Your task to perform on an android device: uninstall "ZOOM Cloud Meetings" Image 0: 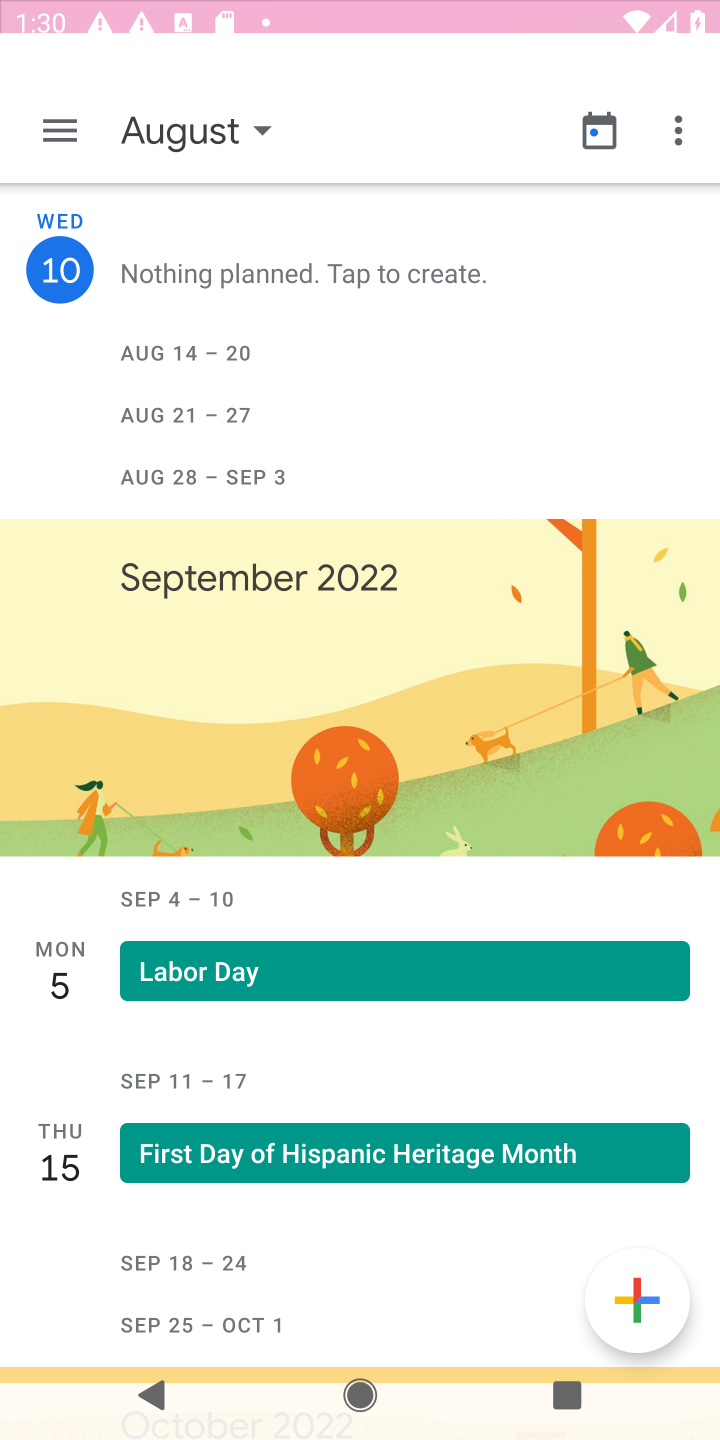
Step 0: press home button
Your task to perform on an android device: uninstall "ZOOM Cloud Meetings" Image 1: 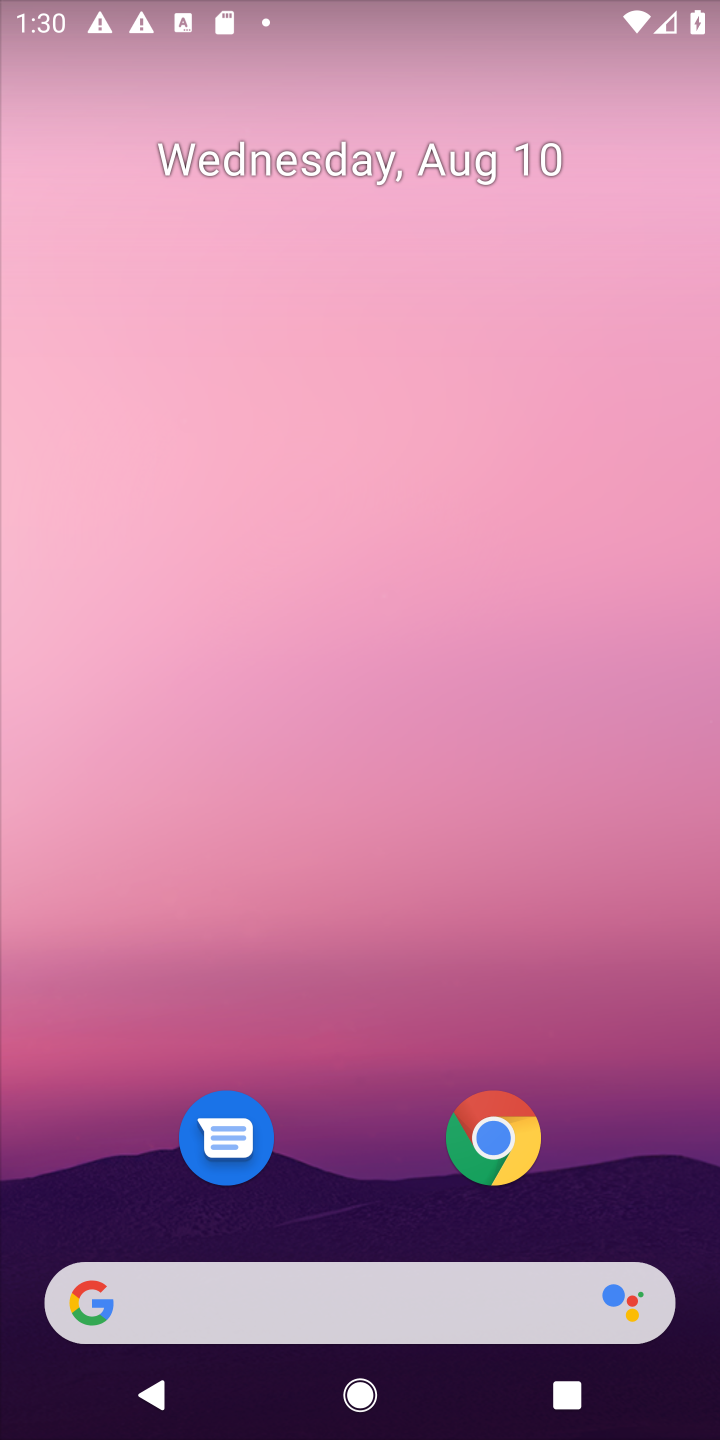
Step 1: drag from (609, 953) to (653, 103)
Your task to perform on an android device: uninstall "ZOOM Cloud Meetings" Image 2: 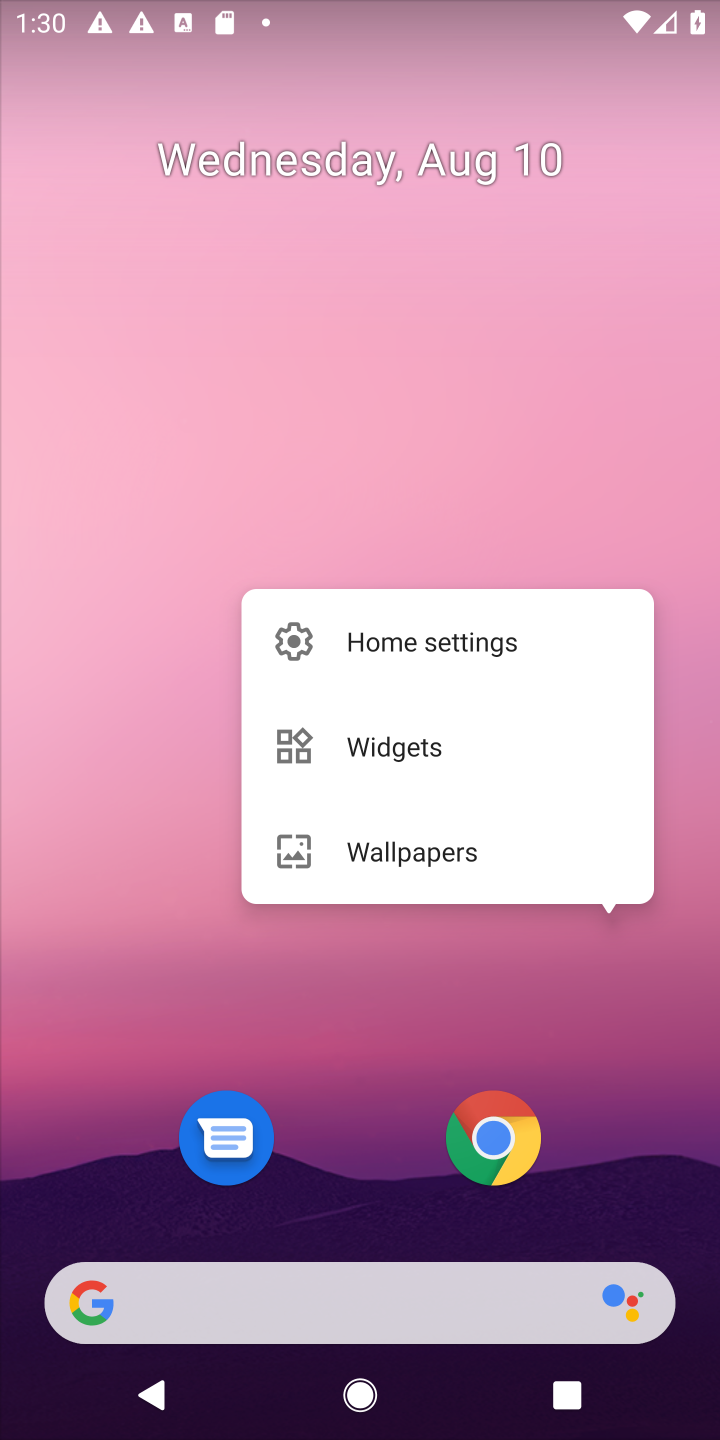
Step 2: click (623, 1052)
Your task to perform on an android device: uninstall "ZOOM Cloud Meetings" Image 3: 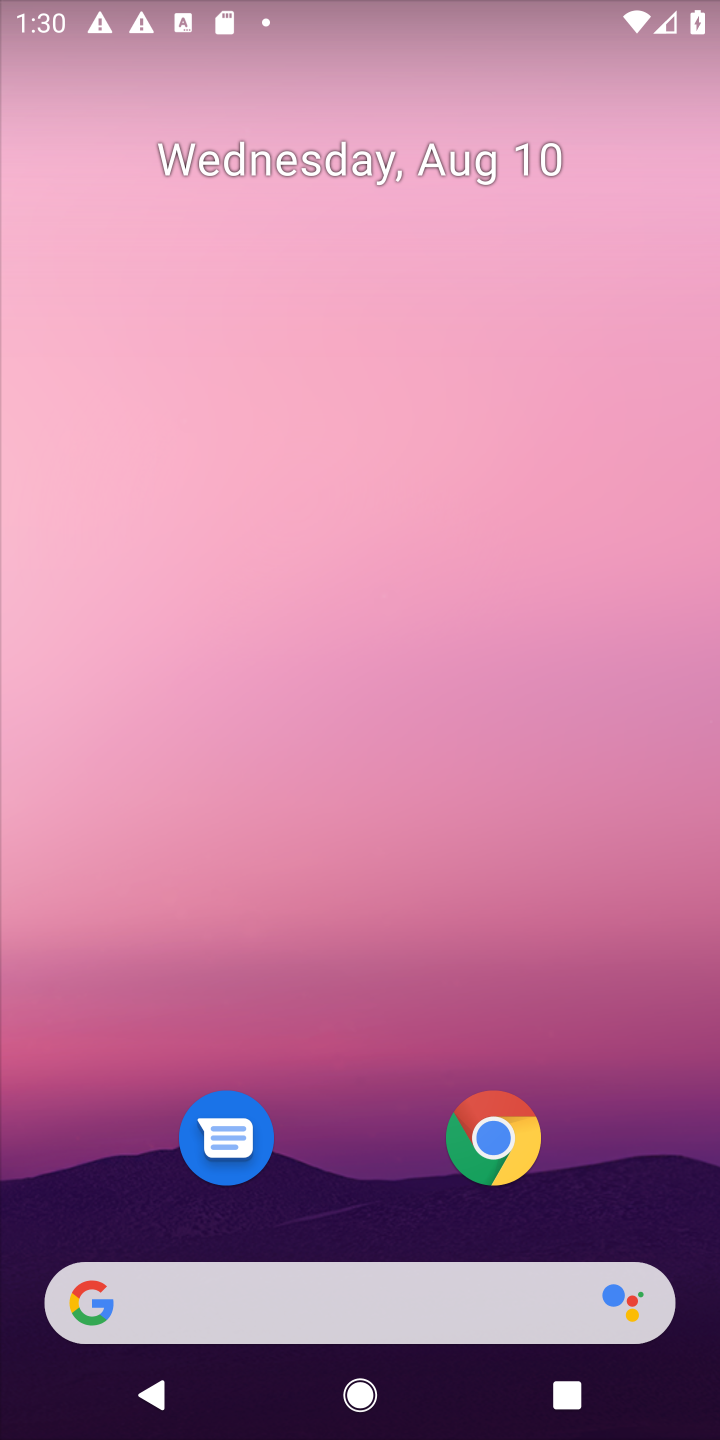
Step 3: drag from (596, 229) to (607, 55)
Your task to perform on an android device: uninstall "ZOOM Cloud Meetings" Image 4: 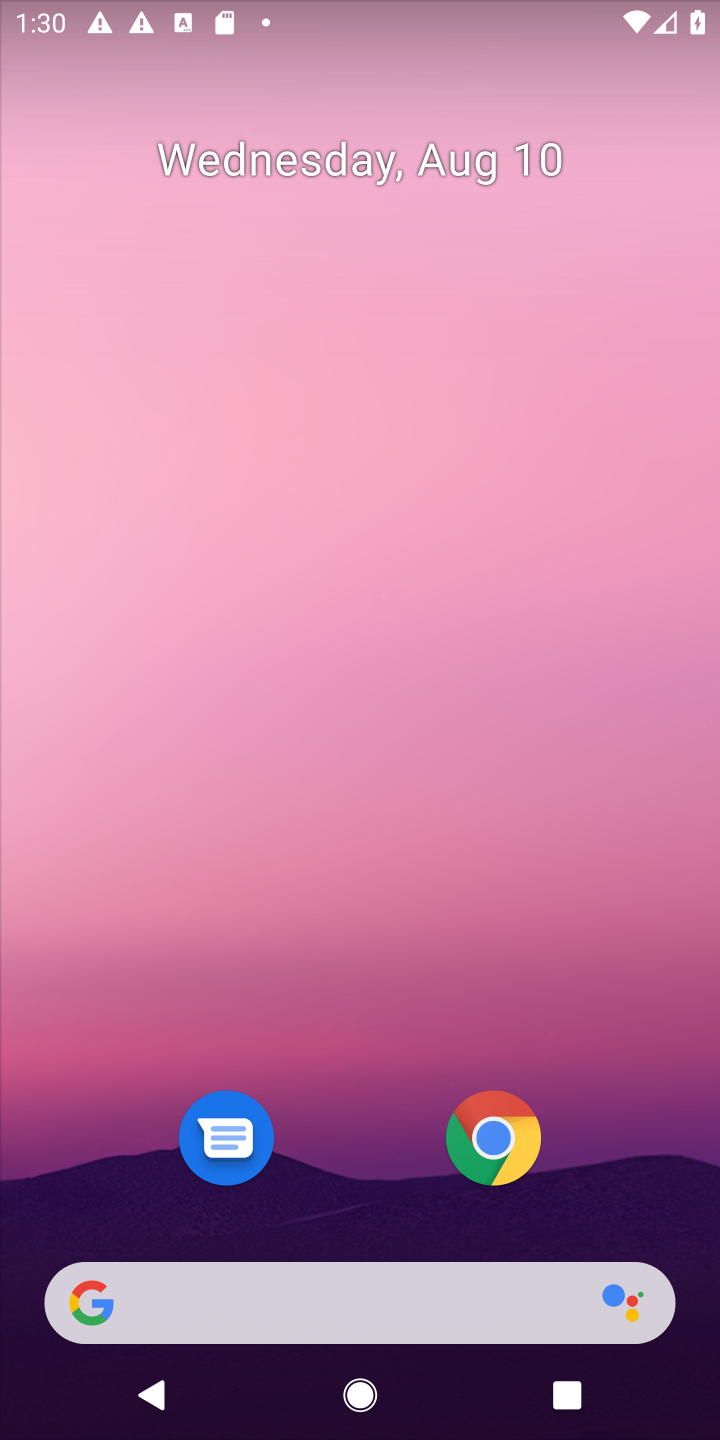
Step 4: drag from (593, 833) to (602, 86)
Your task to perform on an android device: uninstall "ZOOM Cloud Meetings" Image 5: 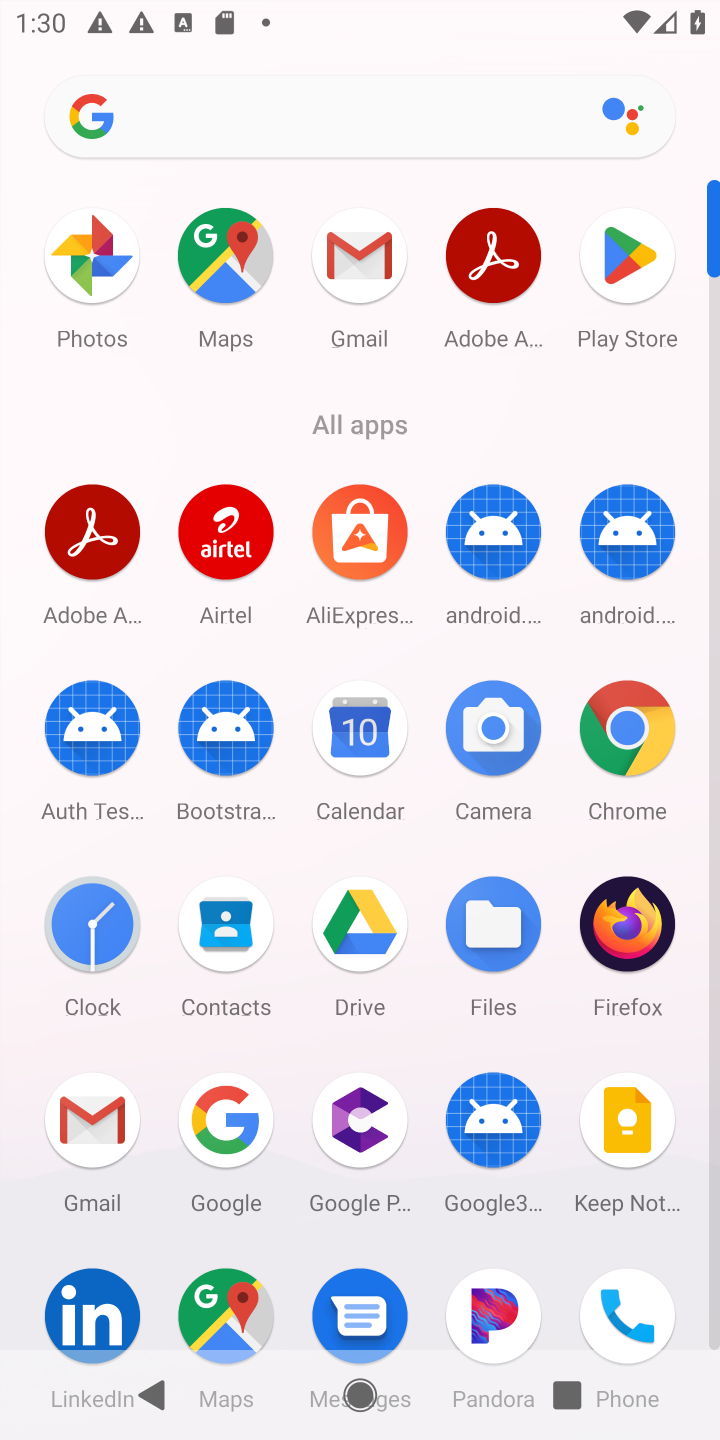
Step 5: click (639, 244)
Your task to perform on an android device: uninstall "ZOOM Cloud Meetings" Image 6: 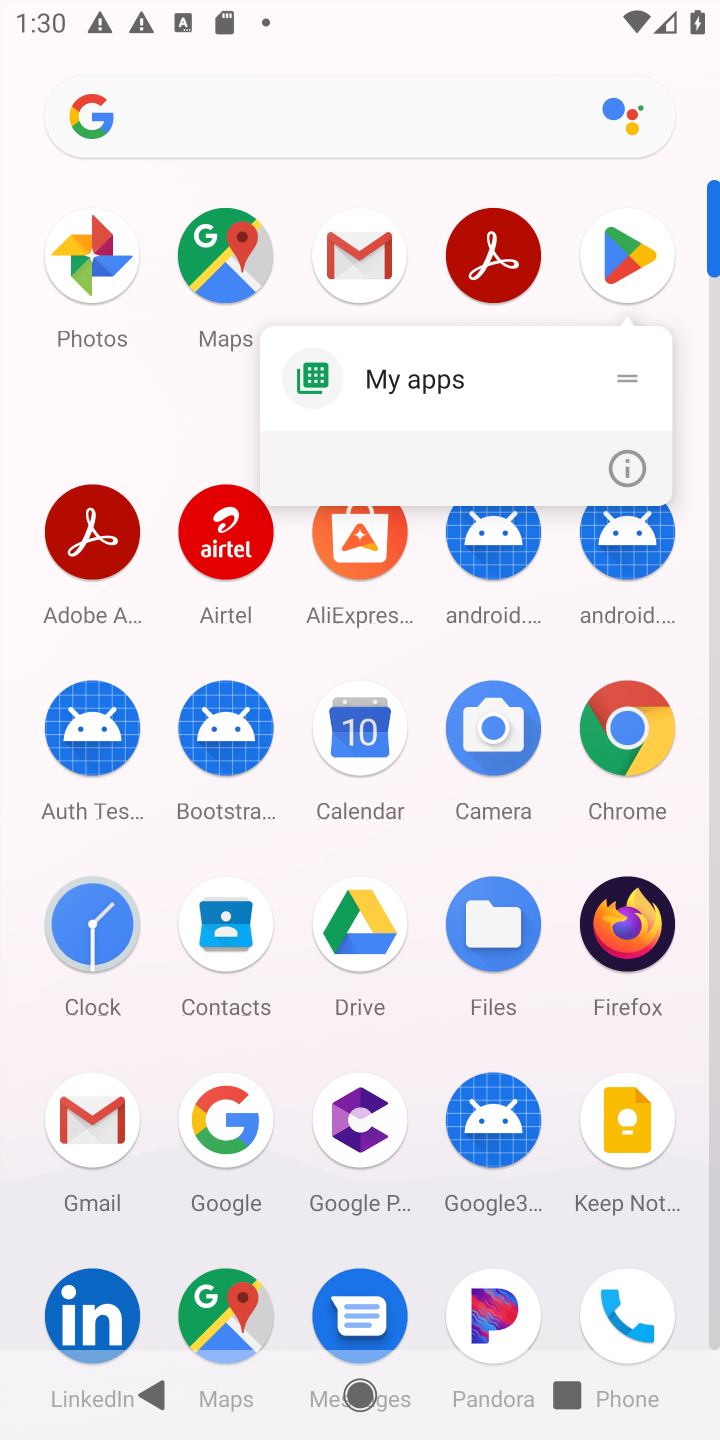
Step 6: click (611, 247)
Your task to perform on an android device: uninstall "ZOOM Cloud Meetings" Image 7: 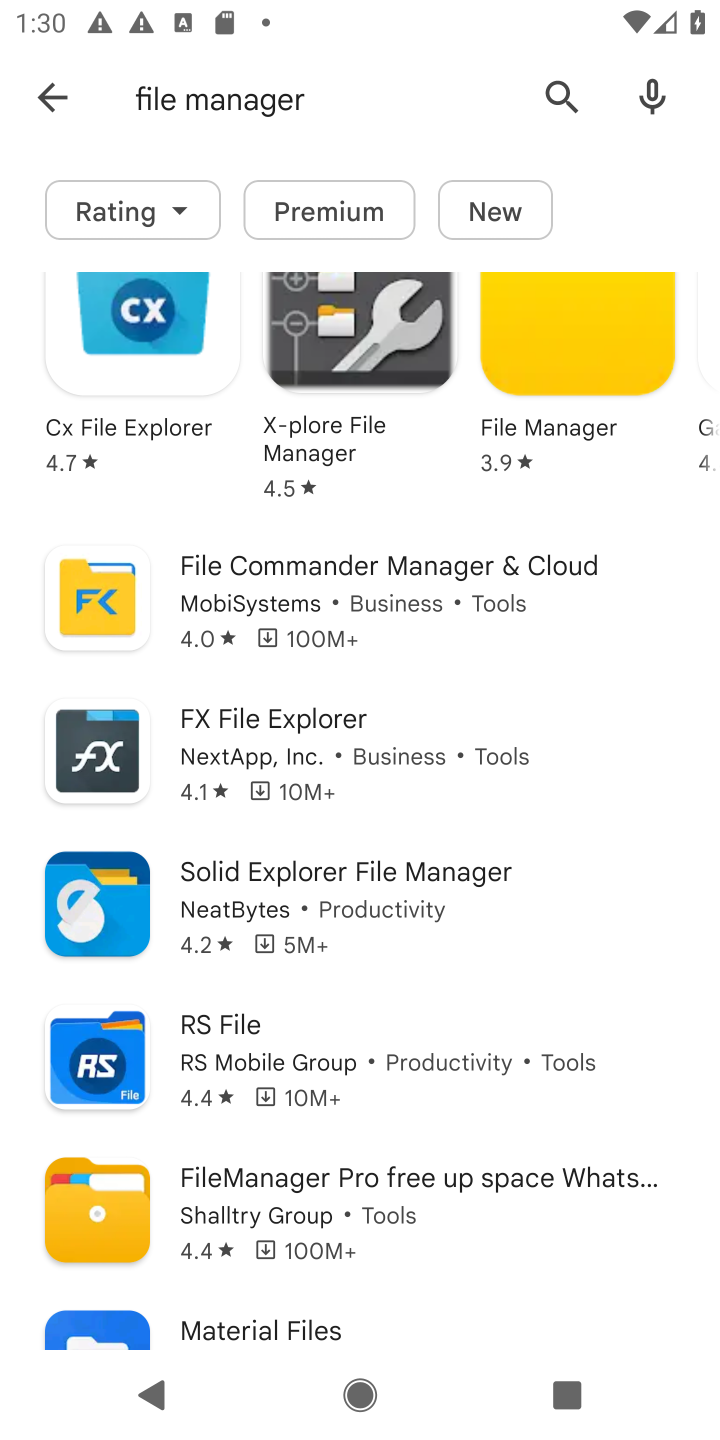
Step 7: click (559, 87)
Your task to perform on an android device: uninstall "ZOOM Cloud Meetings" Image 8: 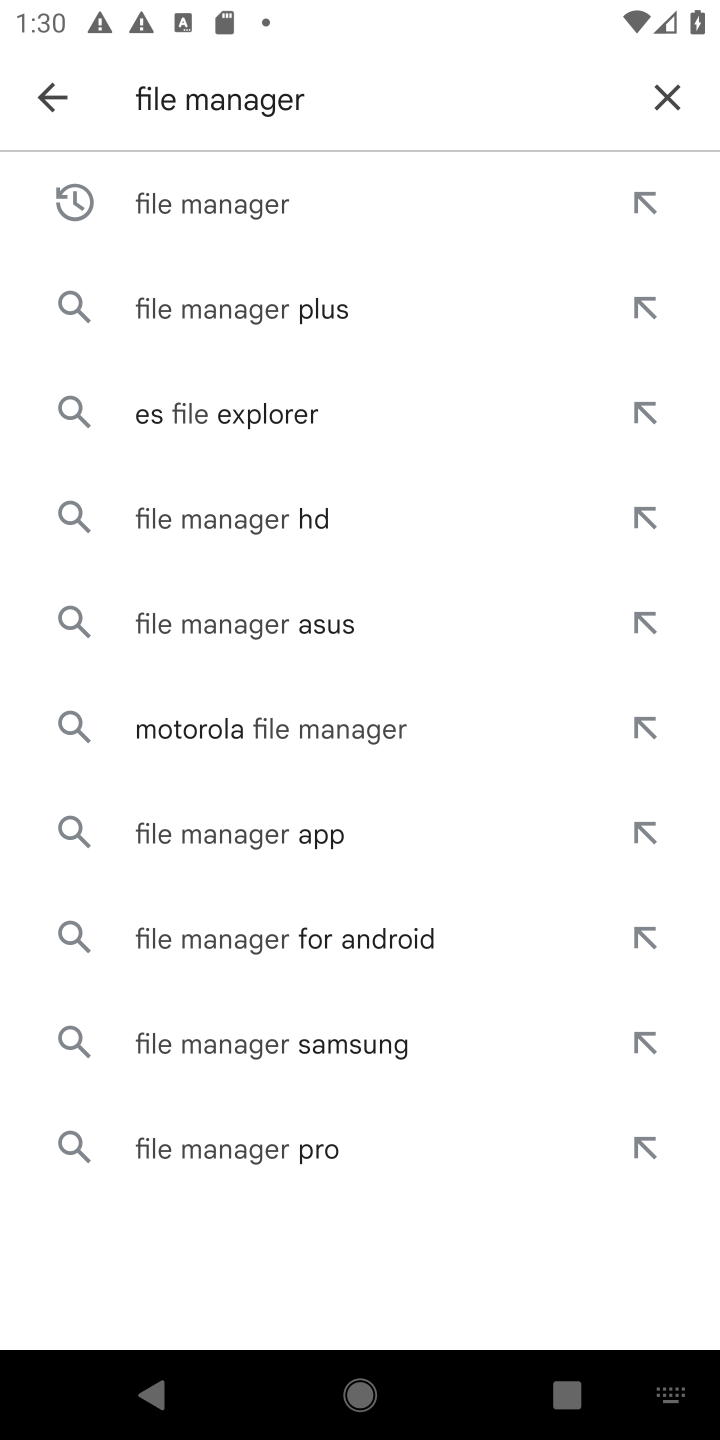
Step 8: click (667, 92)
Your task to perform on an android device: uninstall "ZOOM Cloud Meetings" Image 9: 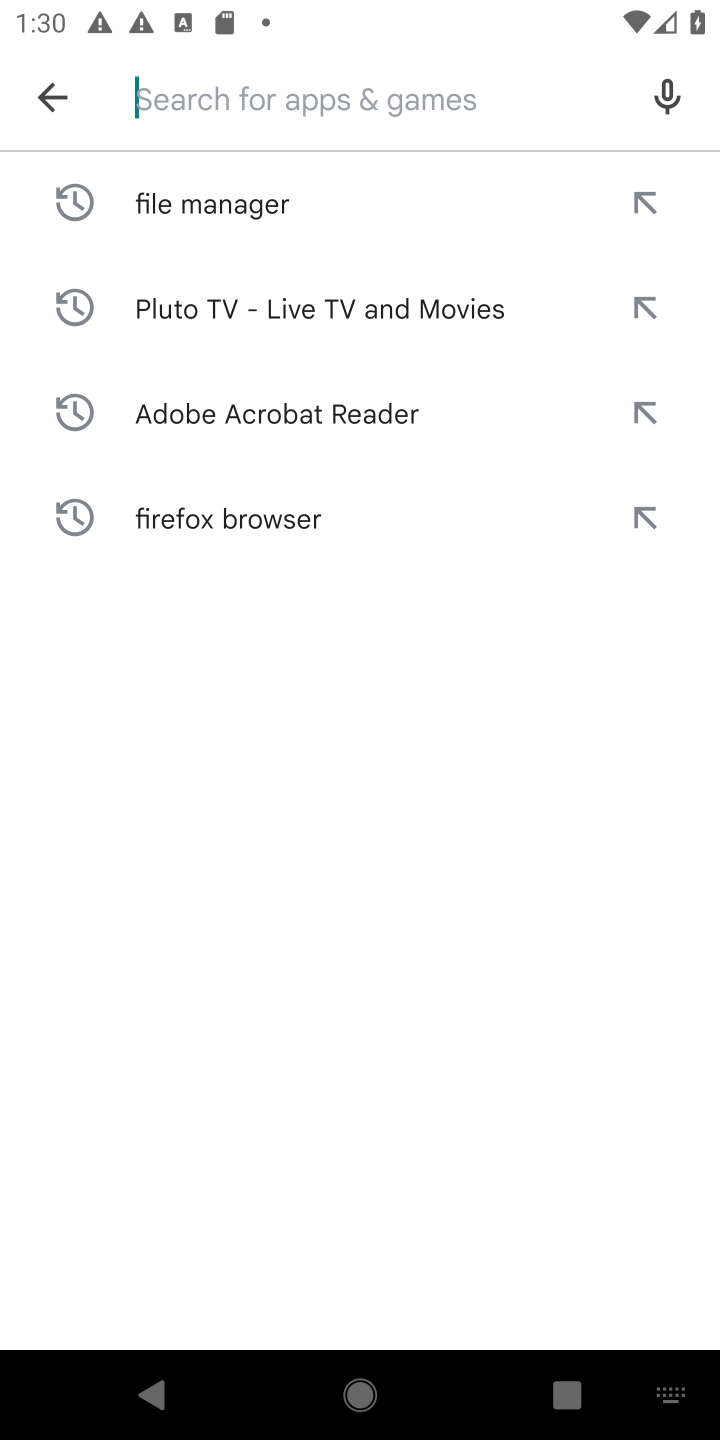
Step 9: press enter
Your task to perform on an android device: uninstall "ZOOM Cloud Meetings" Image 10: 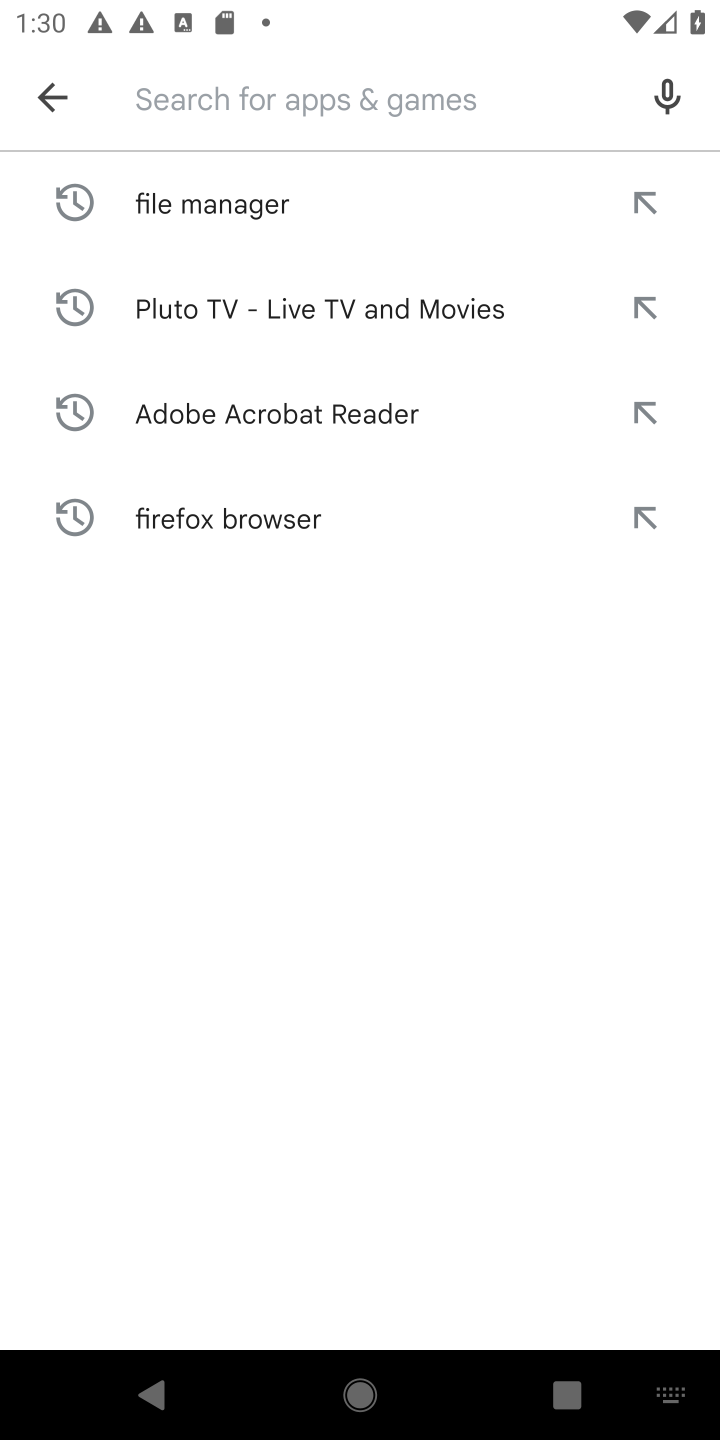
Step 10: type "ZOOM Cloud Meetings"
Your task to perform on an android device: uninstall "ZOOM Cloud Meetings" Image 11: 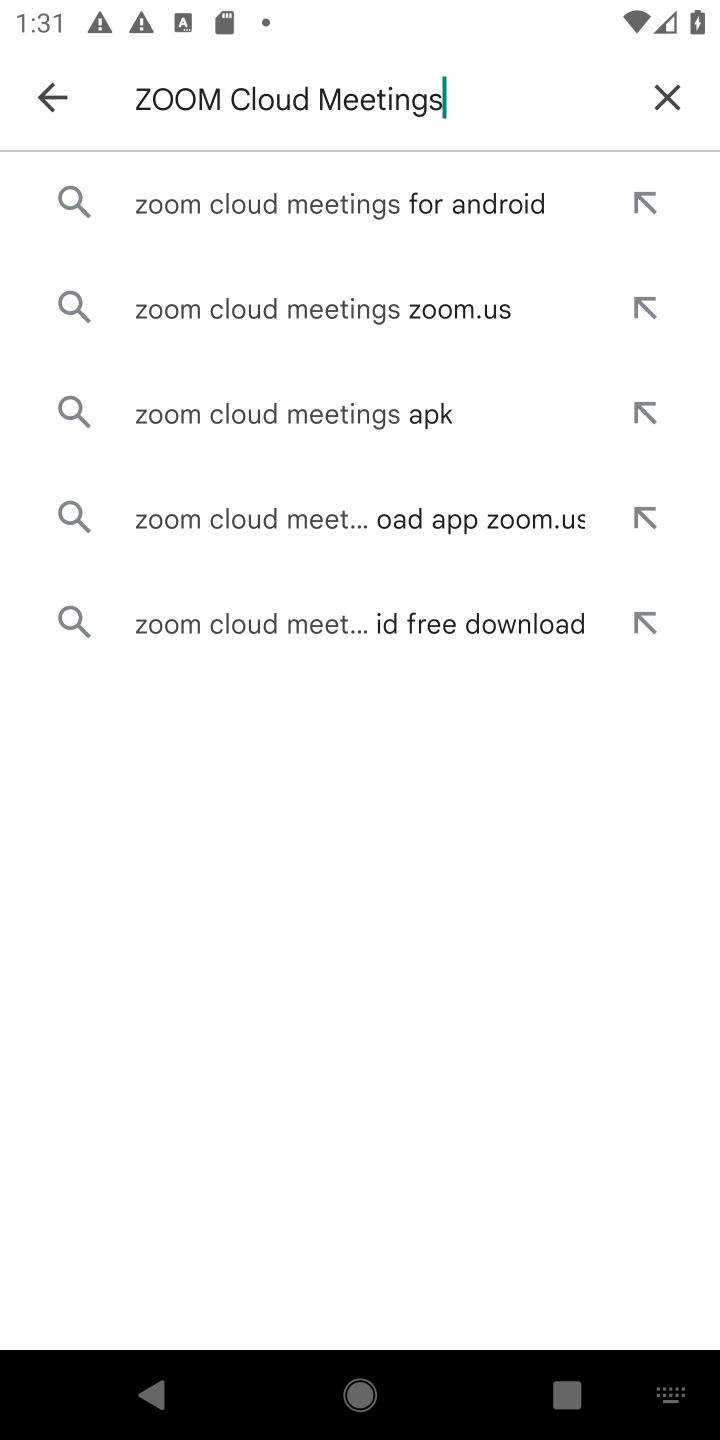
Step 11: click (476, 200)
Your task to perform on an android device: uninstall "ZOOM Cloud Meetings" Image 12: 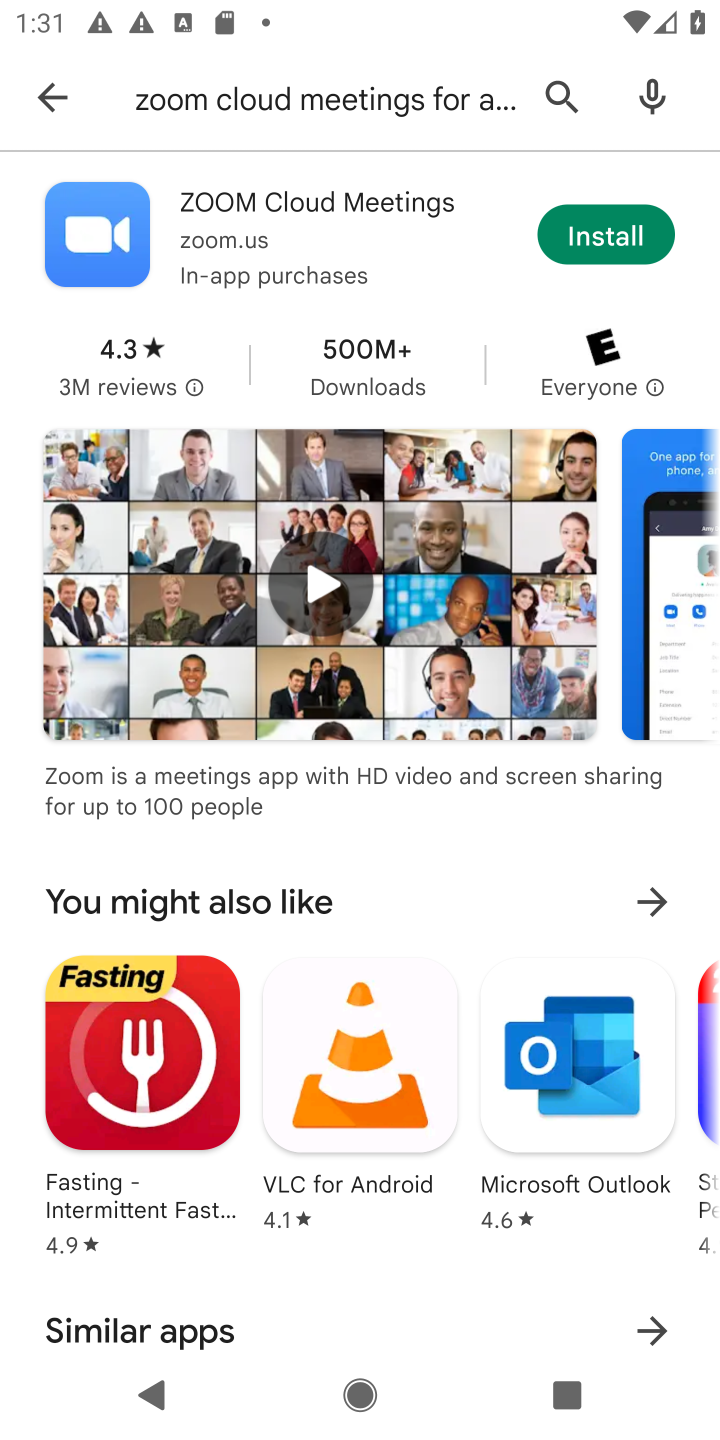
Step 12: task complete